Your task to perform on an android device: Go to network settings Image 0: 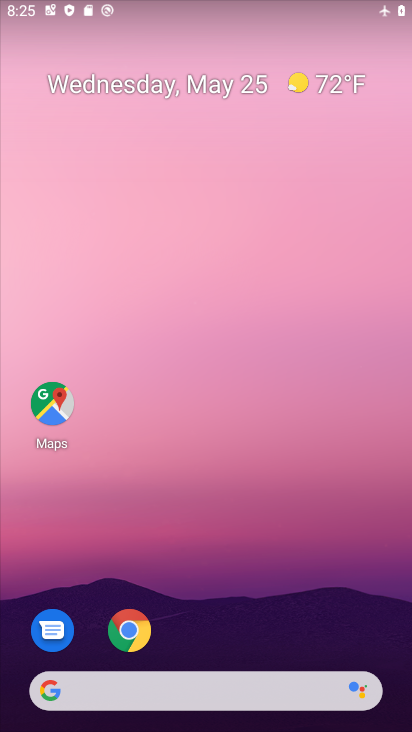
Step 0: drag from (219, 568) to (219, 227)
Your task to perform on an android device: Go to network settings Image 1: 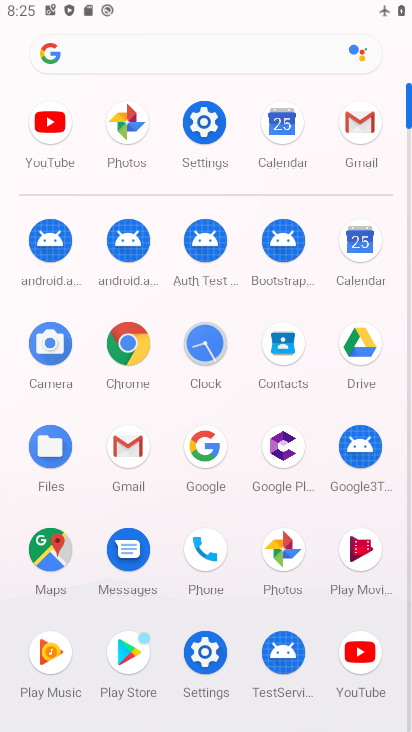
Step 1: click (191, 131)
Your task to perform on an android device: Go to network settings Image 2: 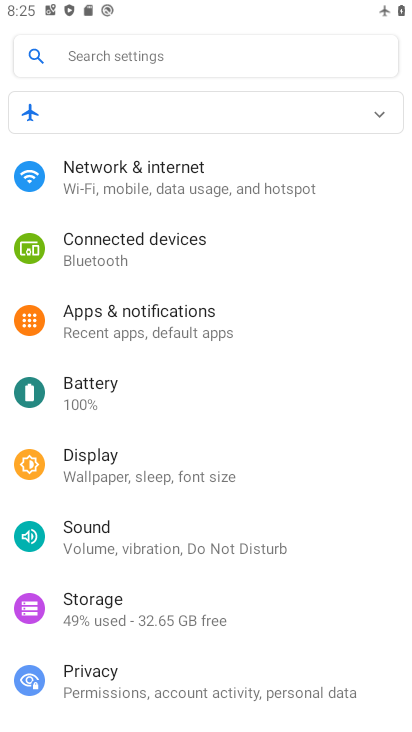
Step 2: click (186, 166)
Your task to perform on an android device: Go to network settings Image 3: 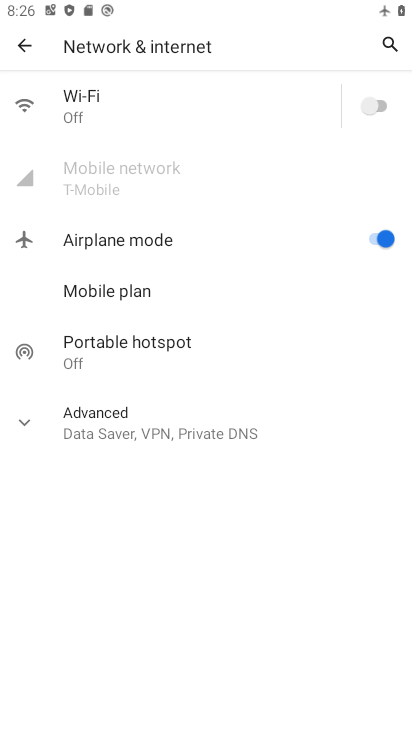
Step 3: task complete